Your task to perform on an android device: Go to Reddit.com Image 0: 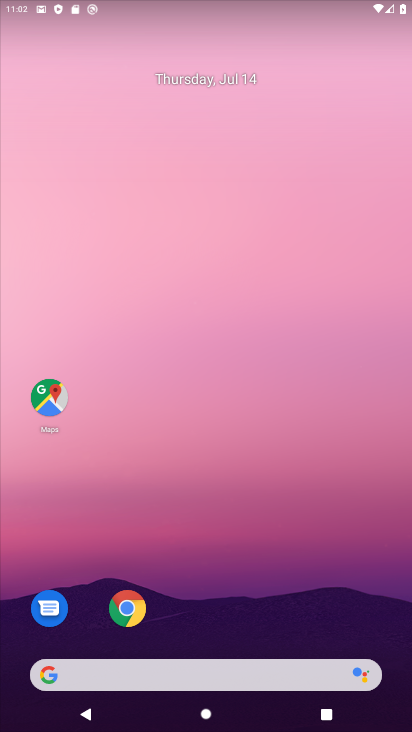
Step 0: drag from (267, 579) to (208, 32)
Your task to perform on an android device: Go to Reddit.com Image 1: 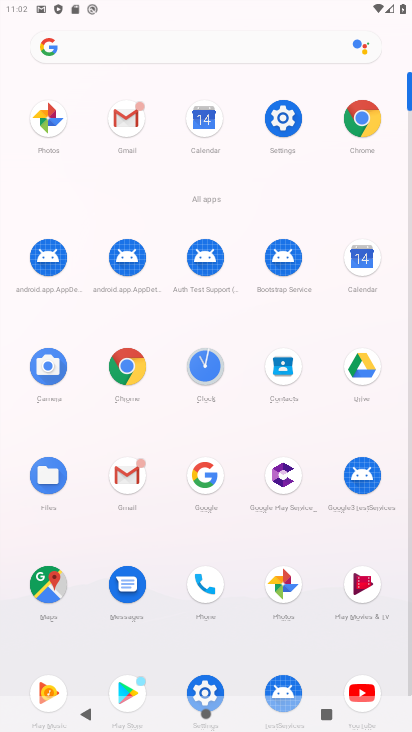
Step 1: click (360, 119)
Your task to perform on an android device: Go to Reddit.com Image 2: 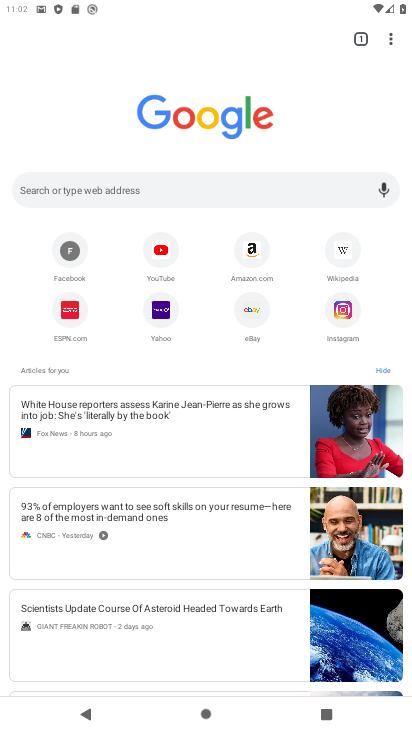
Step 2: click (204, 190)
Your task to perform on an android device: Go to Reddit.com Image 3: 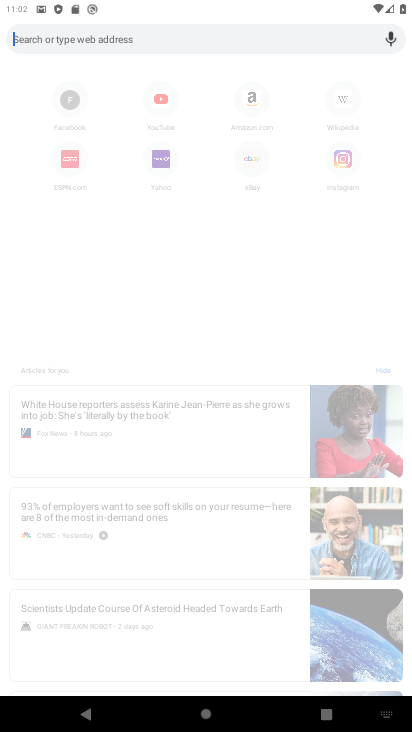
Step 3: type " Reddit.com"
Your task to perform on an android device: Go to Reddit.com Image 4: 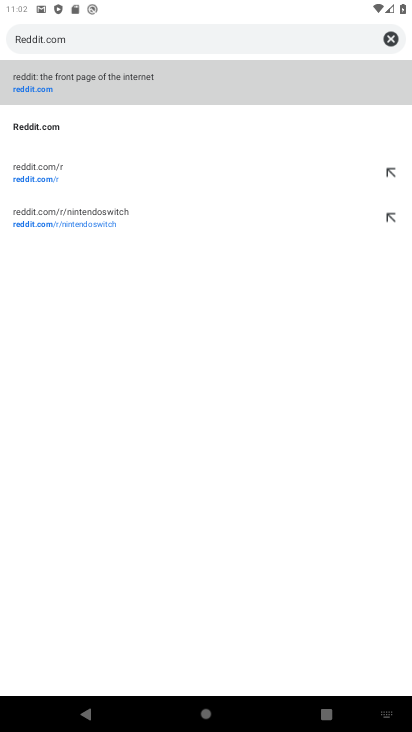
Step 4: press enter
Your task to perform on an android device: Go to Reddit.com Image 5: 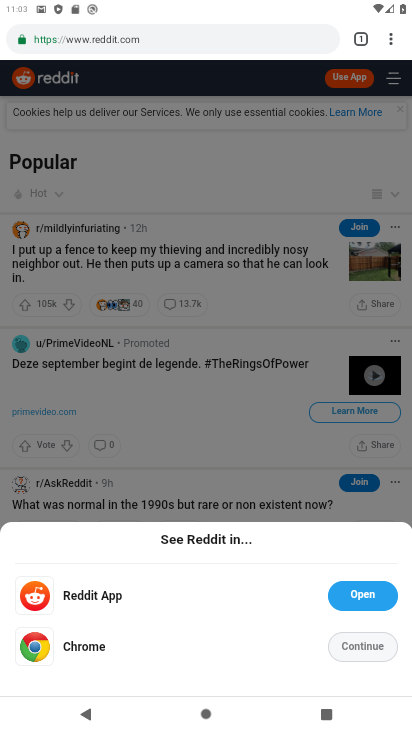
Step 5: task complete